Your task to perform on an android device: Open calendar and show me the third week of next month Image 0: 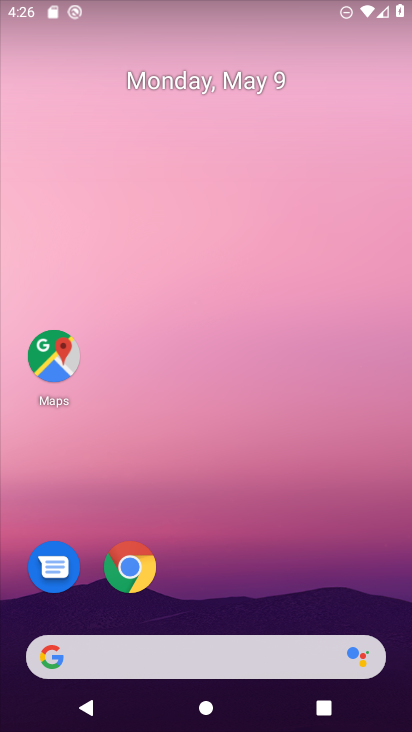
Step 0: drag from (285, 599) to (281, 692)
Your task to perform on an android device: Open calendar and show me the third week of next month Image 1: 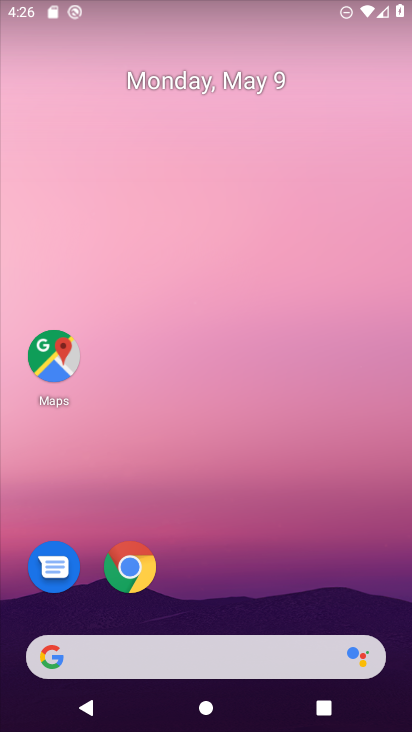
Step 1: click (208, 84)
Your task to perform on an android device: Open calendar and show me the third week of next month Image 2: 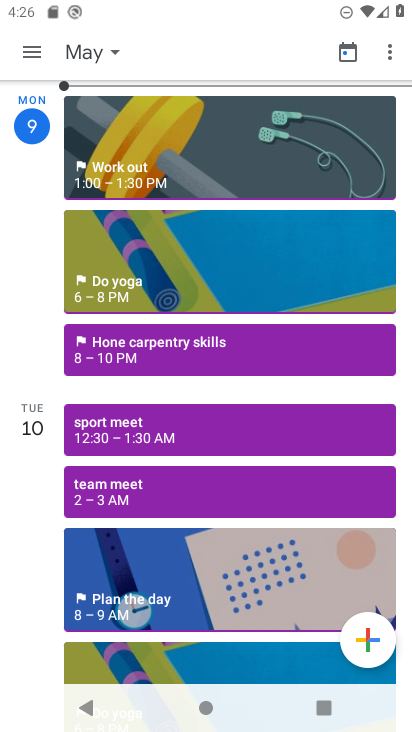
Step 2: click (35, 53)
Your task to perform on an android device: Open calendar and show me the third week of next month Image 3: 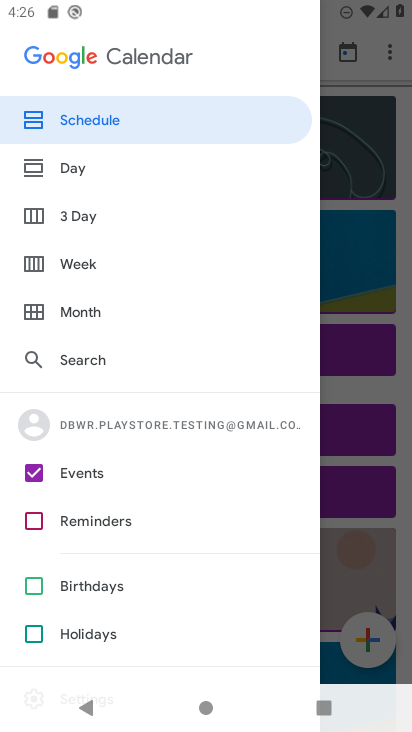
Step 3: click (90, 267)
Your task to perform on an android device: Open calendar and show me the third week of next month Image 4: 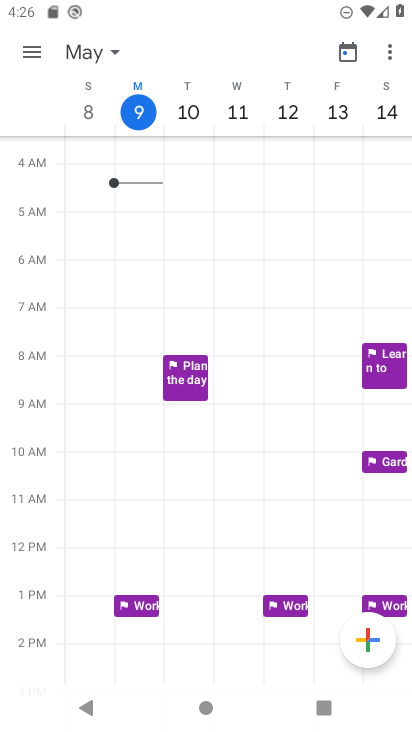
Step 4: click (108, 54)
Your task to perform on an android device: Open calendar and show me the third week of next month Image 5: 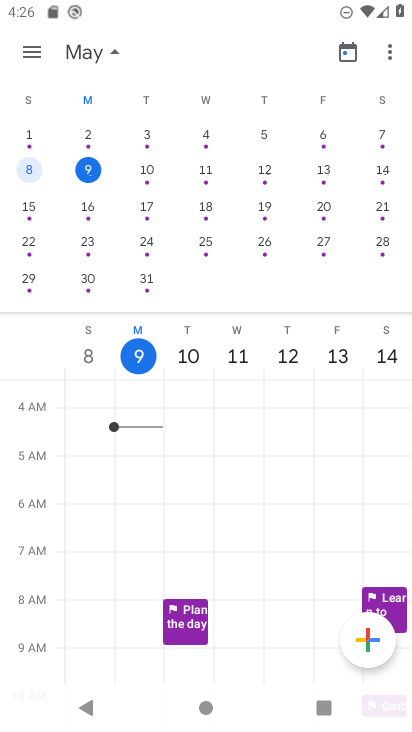
Step 5: drag from (340, 219) to (12, 230)
Your task to perform on an android device: Open calendar and show me the third week of next month Image 6: 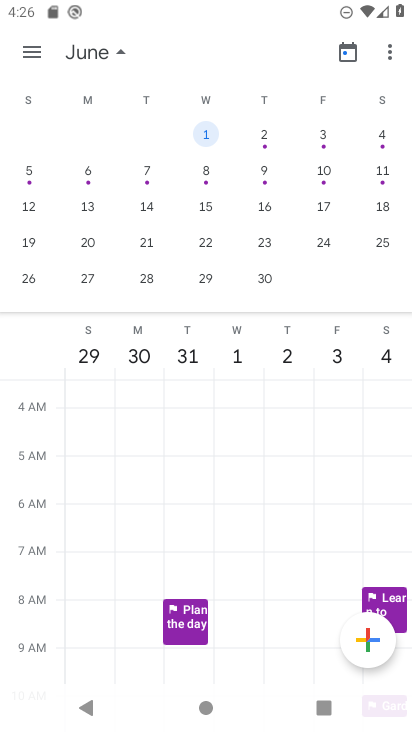
Step 6: click (152, 208)
Your task to perform on an android device: Open calendar and show me the third week of next month Image 7: 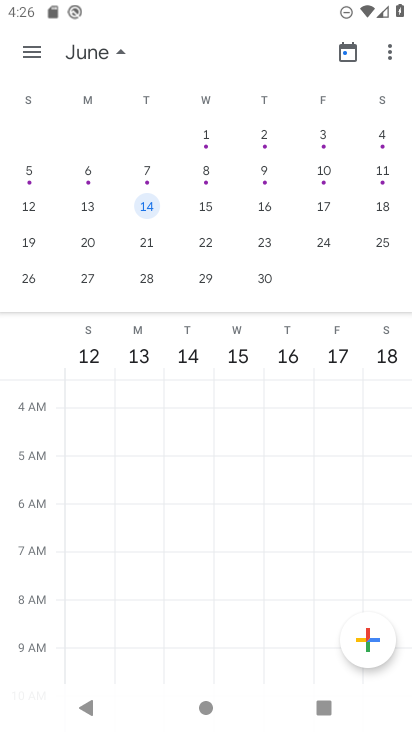
Step 7: task complete